Your task to perform on an android device: Go to CNN.com Image 0: 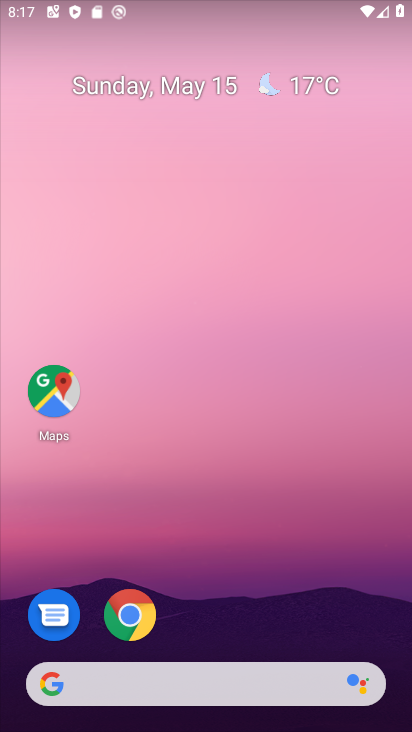
Step 0: click (143, 610)
Your task to perform on an android device: Go to CNN.com Image 1: 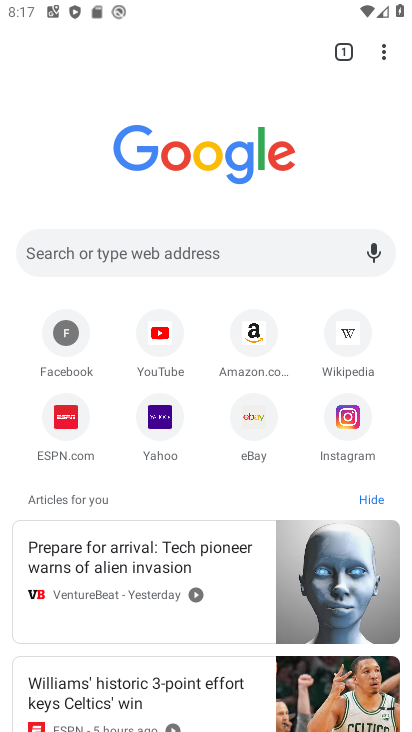
Step 1: click (173, 263)
Your task to perform on an android device: Go to CNN.com Image 2: 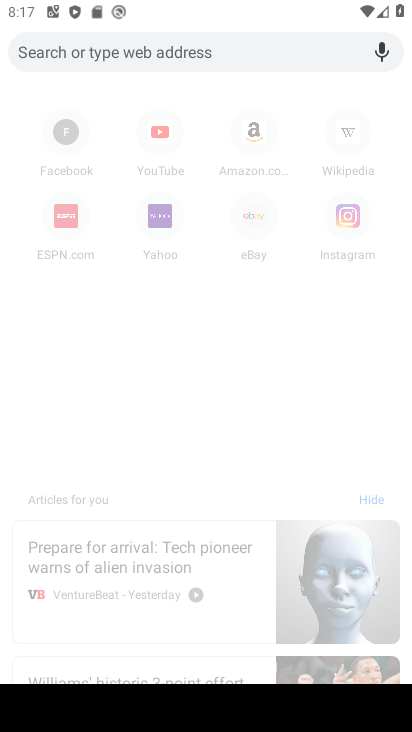
Step 2: type "cnn.com"
Your task to perform on an android device: Go to CNN.com Image 3: 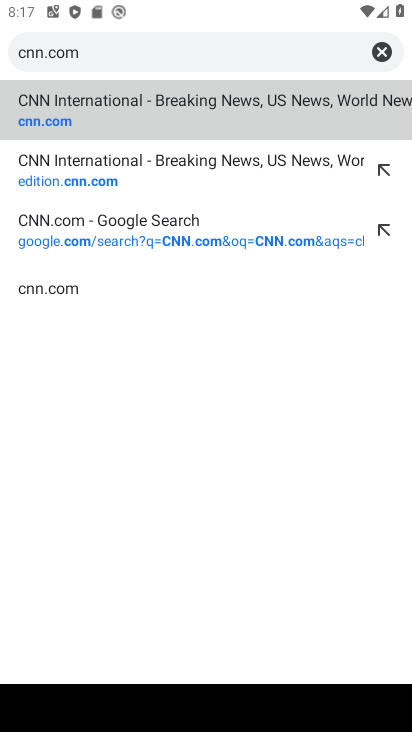
Step 3: click (290, 132)
Your task to perform on an android device: Go to CNN.com Image 4: 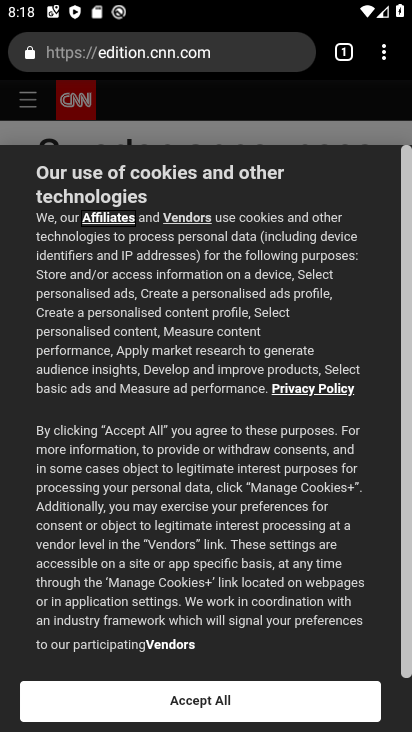
Step 4: task complete